Your task to perform on an android device: open app "Viber Messenger" (install if not already installed) Image 0: 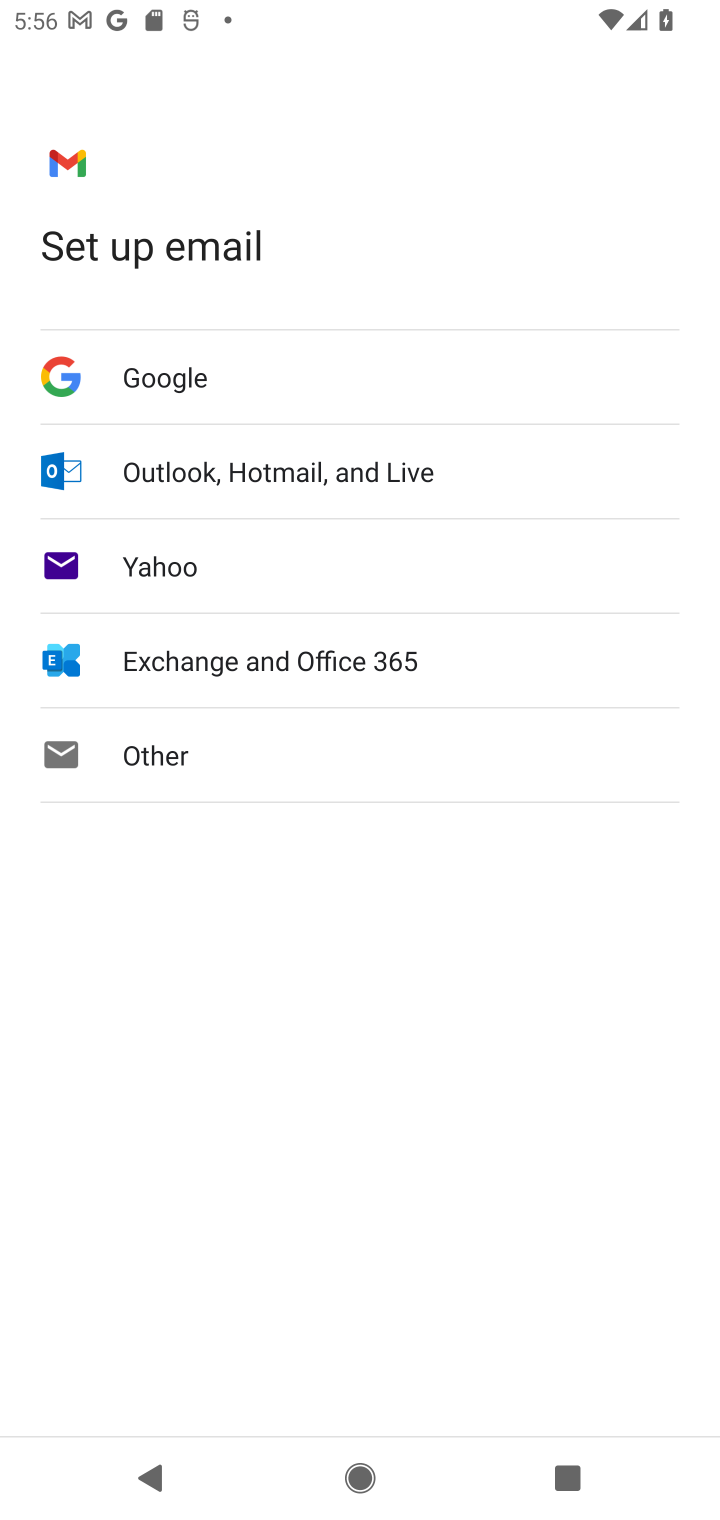
Step 0: press home button
Your task to perform on an android device: open app "Viber Messenger" (install if not already installed) Image 1: 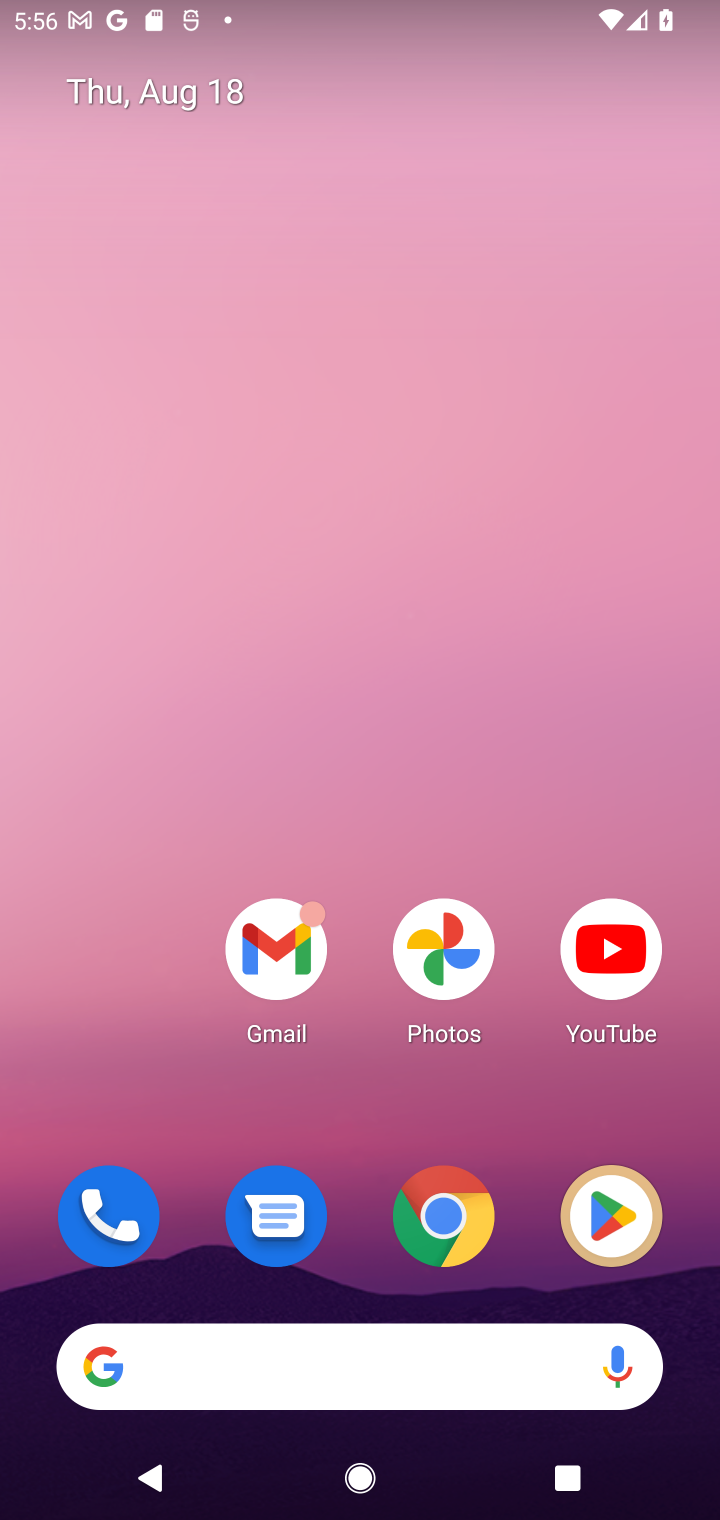
Step 1: click (613, 1209)
Your task to perform on an android device: open app "Viber Messenger" (install if not already installed) Image 2: 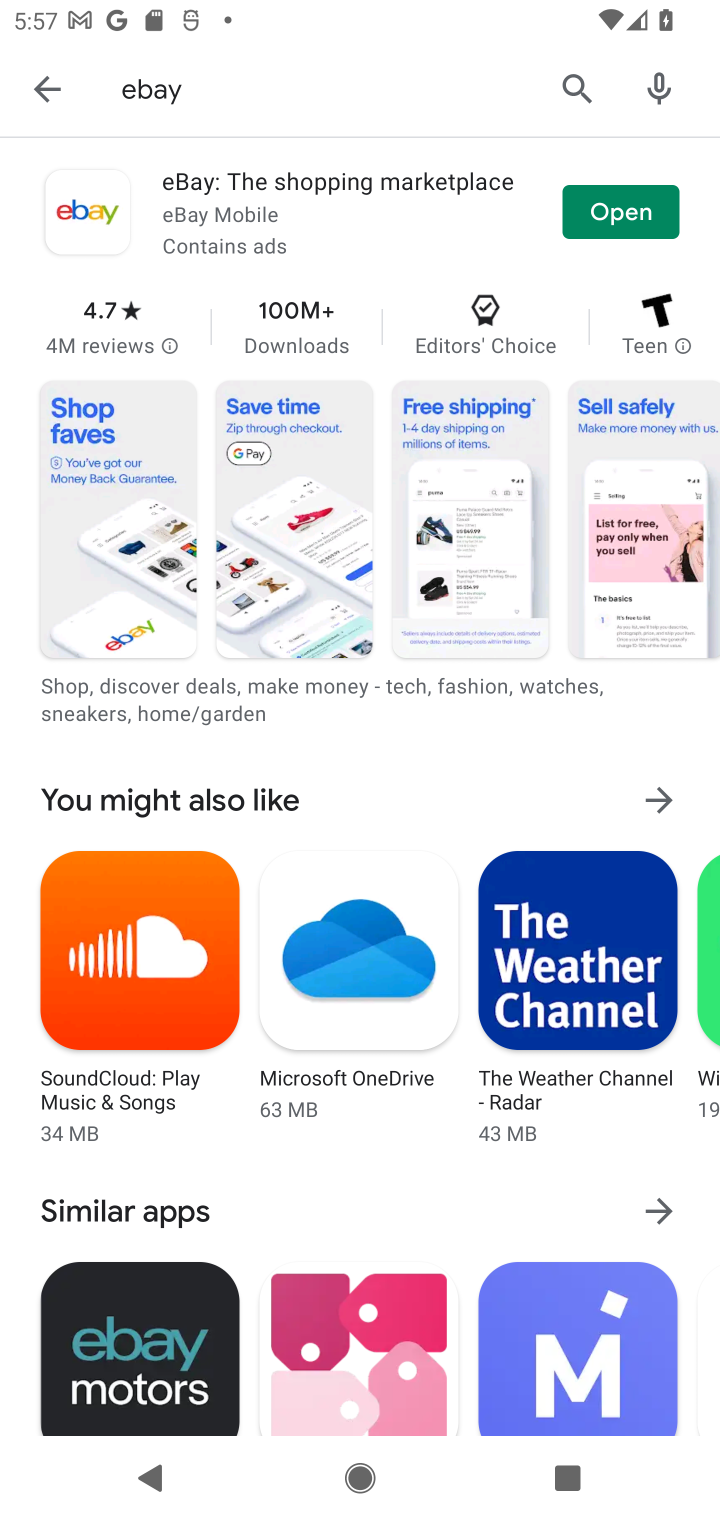
Step 2: click (572, 88)
Your task to perform on an android device: open app "Viber Messenger" (install if not already installed) Image 3: 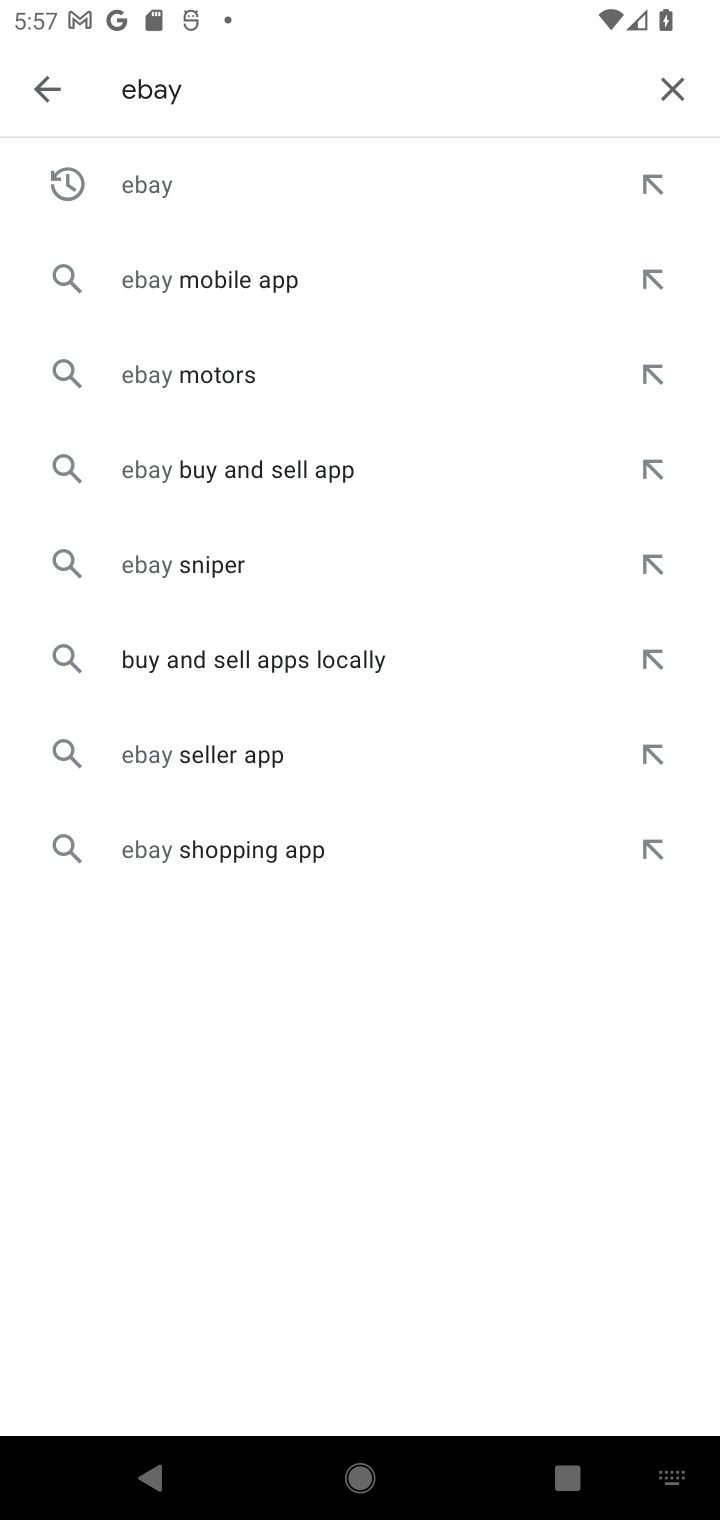
Step 3: click (673, 89)
Your task to perform on an android device: open app "Viber Messenger" (install if not already installed) Image 4: 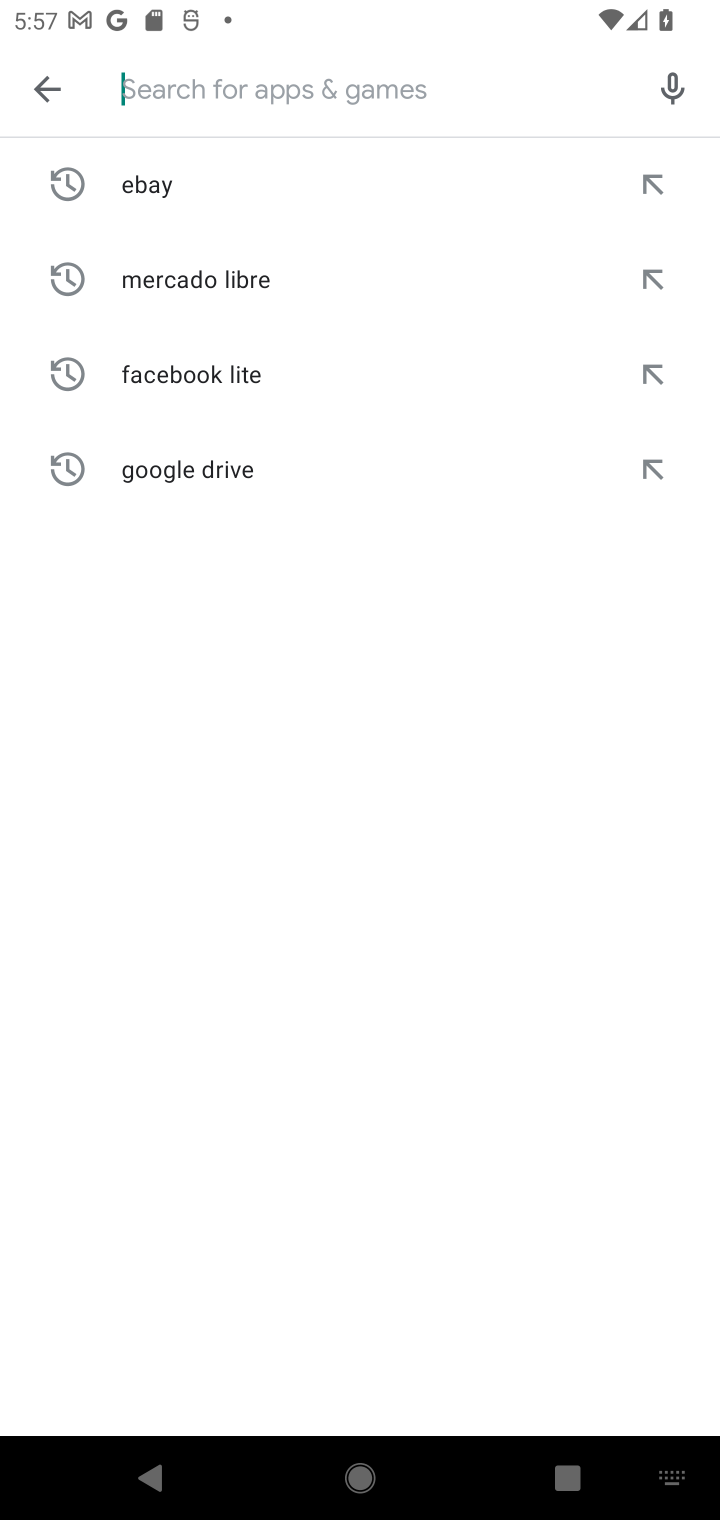
Step 4: type "Viber Messenger"
Your task to perform on an android device: open app "Viber Messenger" (install if not already installed) Image 5: 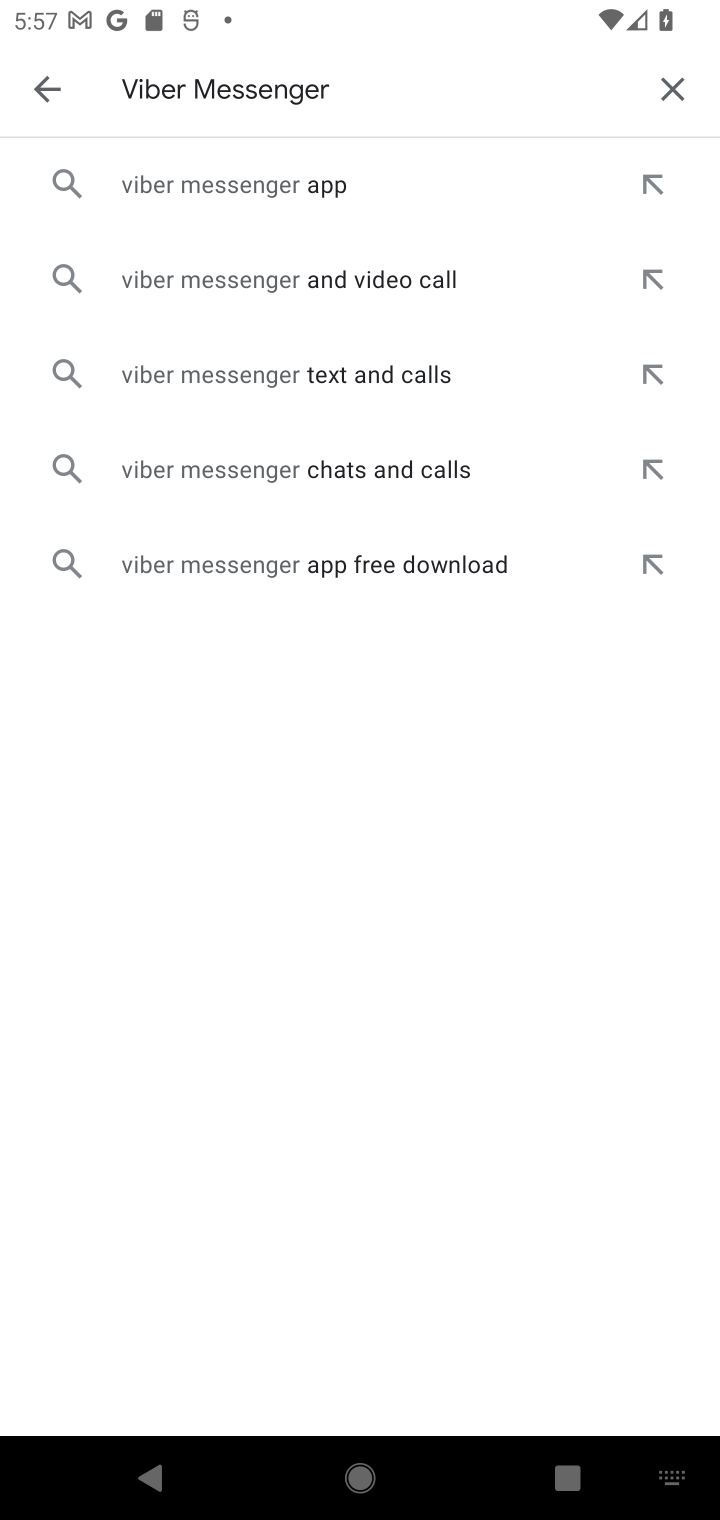
Step 5: click (196, 179)
Your task to perform on an android device: open app "Viber Messenger" (install if not already installed) Image 6: 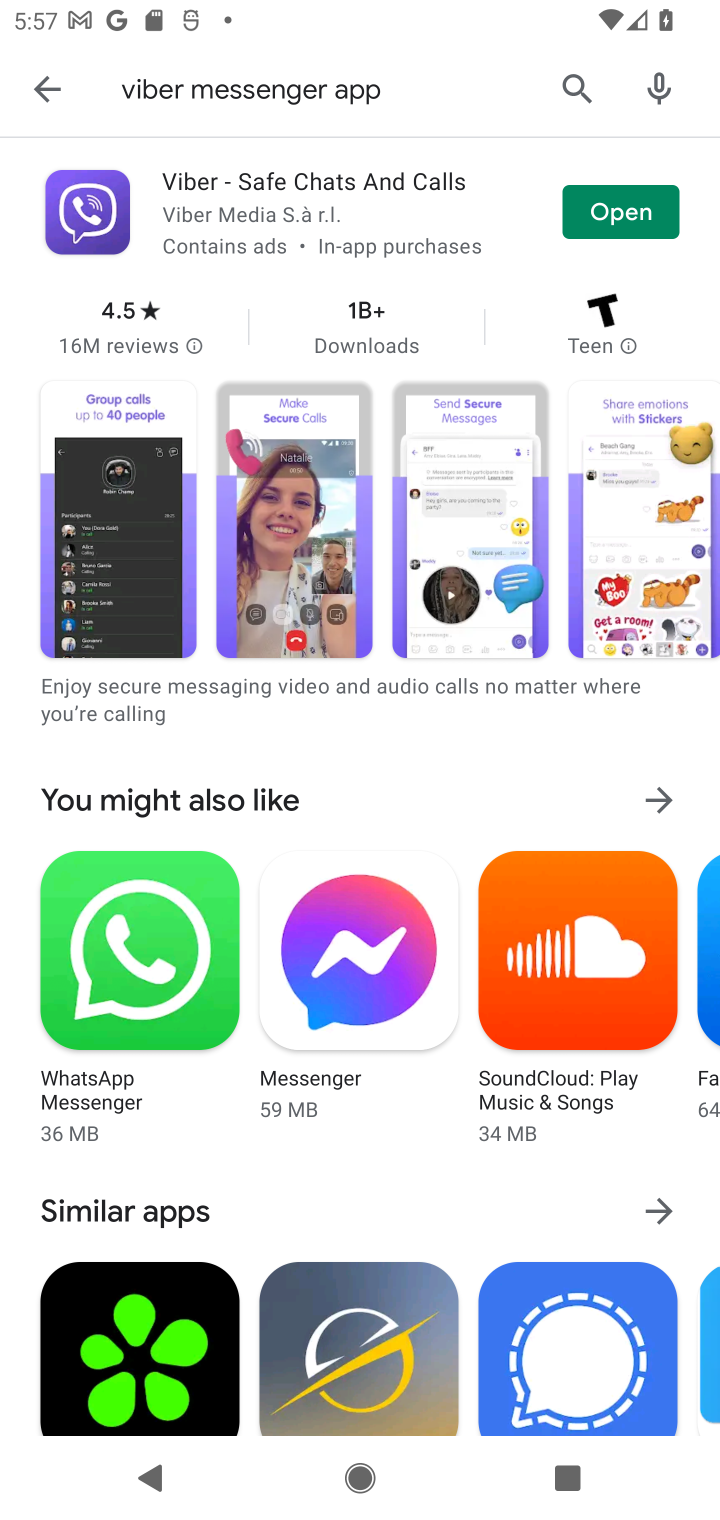
Step 6: click (623, 211)
Your task to perform on an android device: open app "Viber Messenger" (install if not already installed) Image 7: 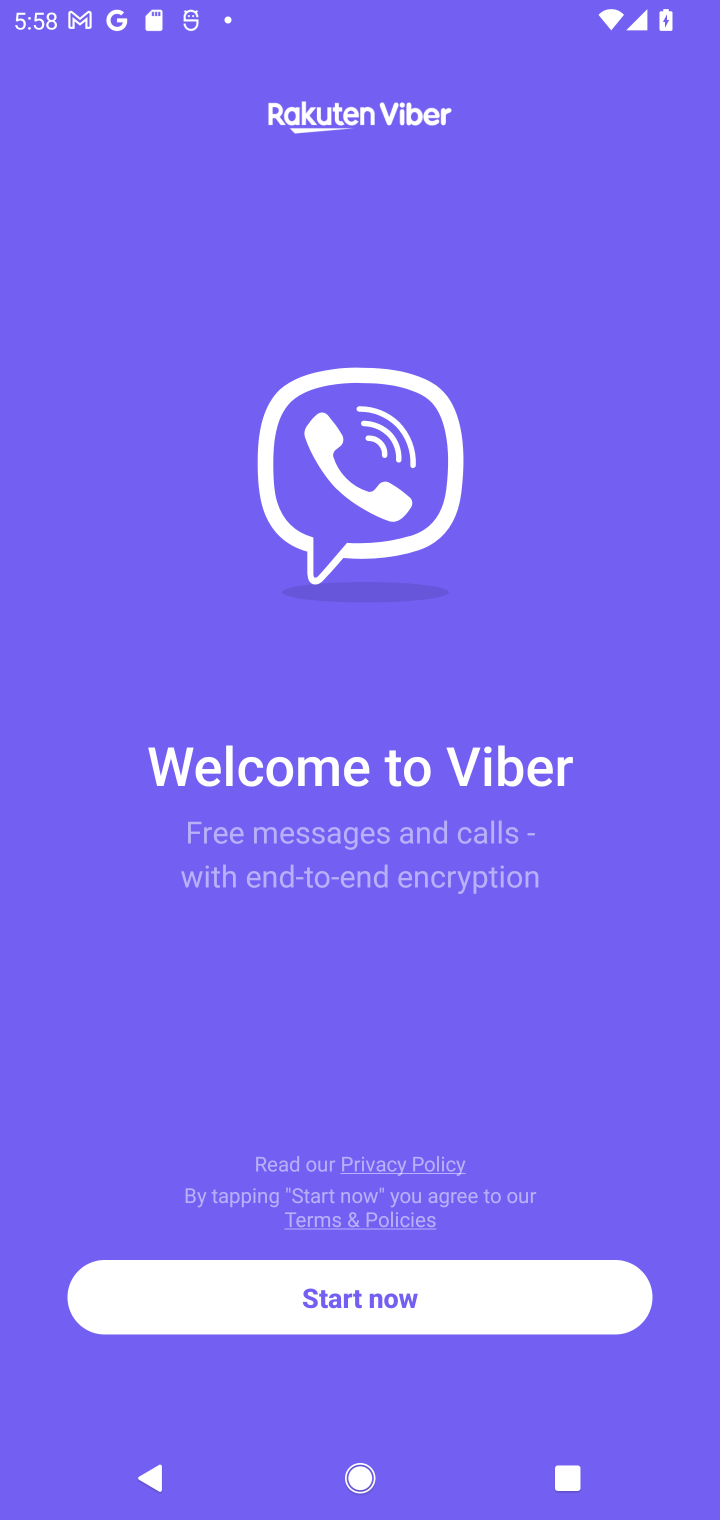
Step 7: task complete